Your task to perform on an android device: set the stopwatch Image 0: 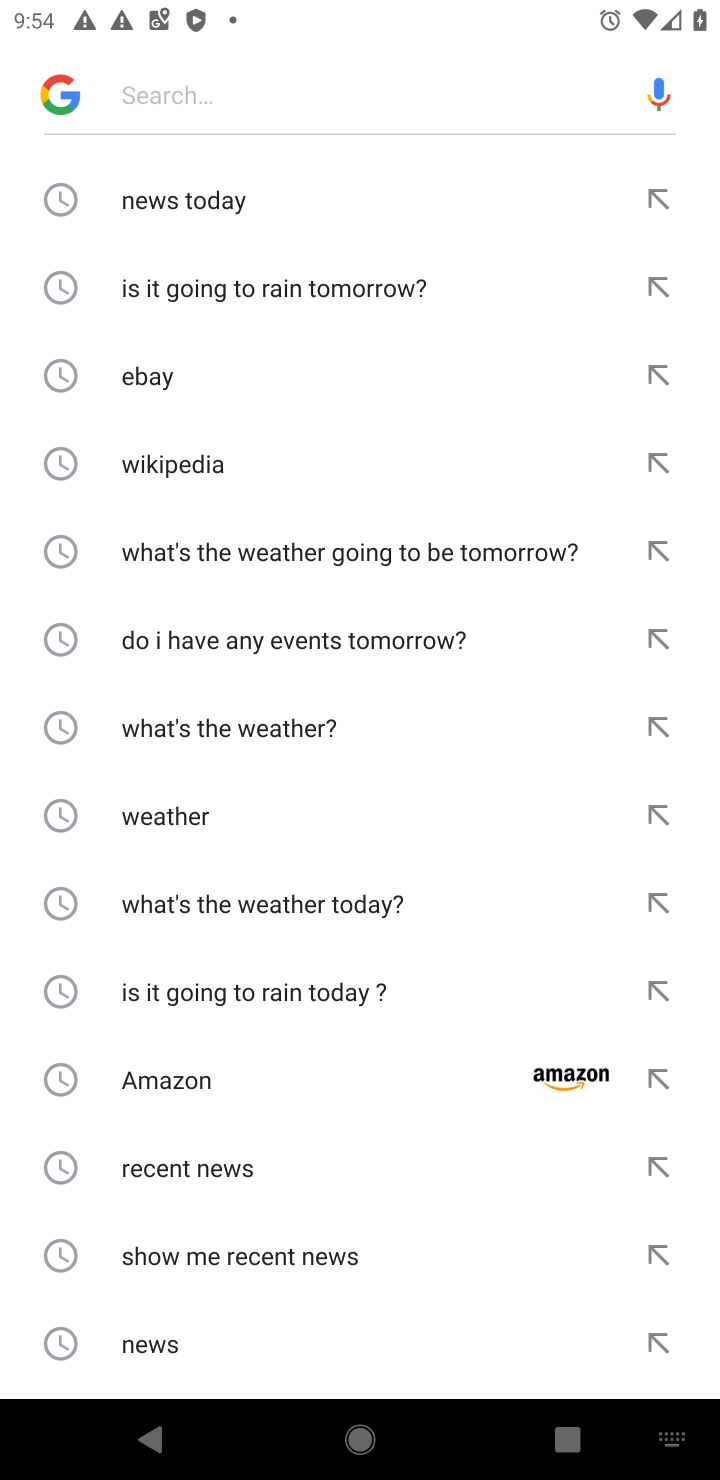
Step 0: press back button
Your task to perform on an android device: set the stopwatch Image 1: 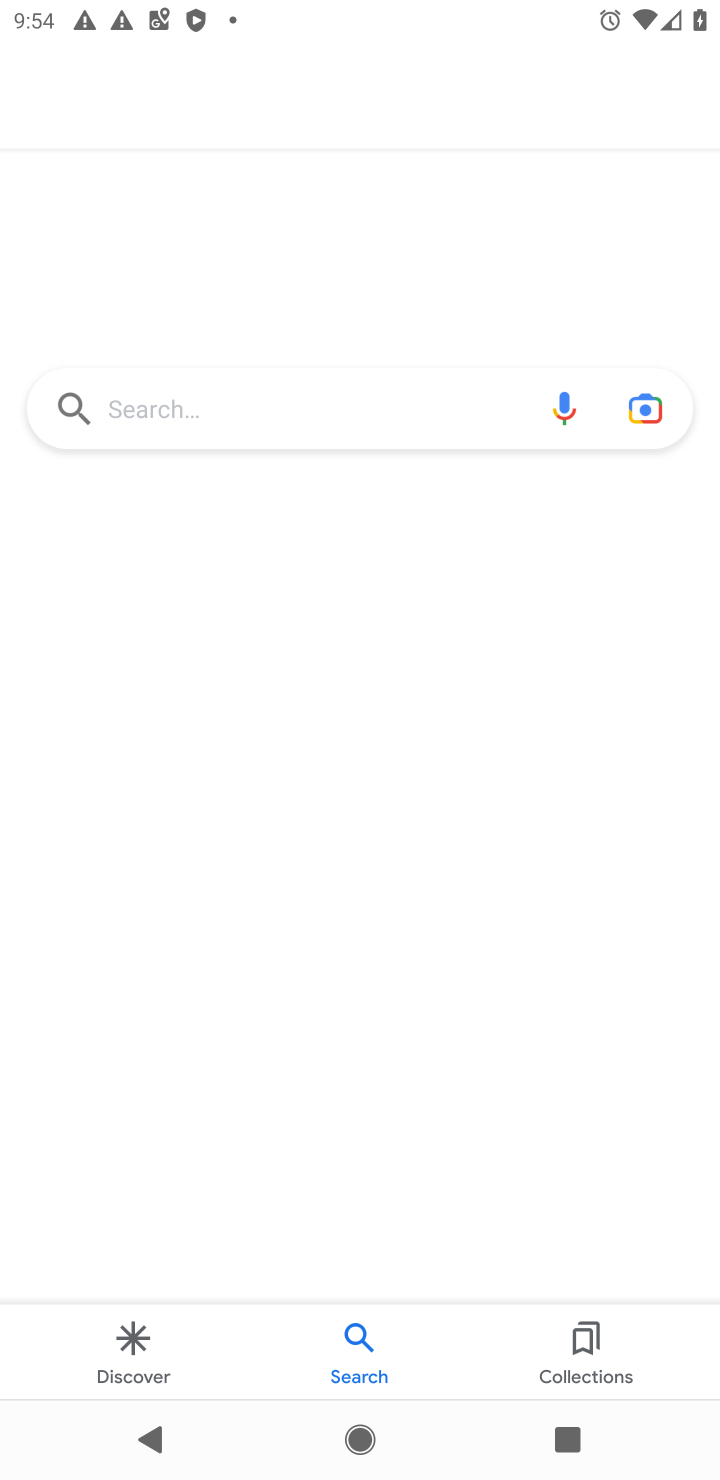
Step 1: press back button
Your task to perform on an android device: set the stopwatch Image 2: 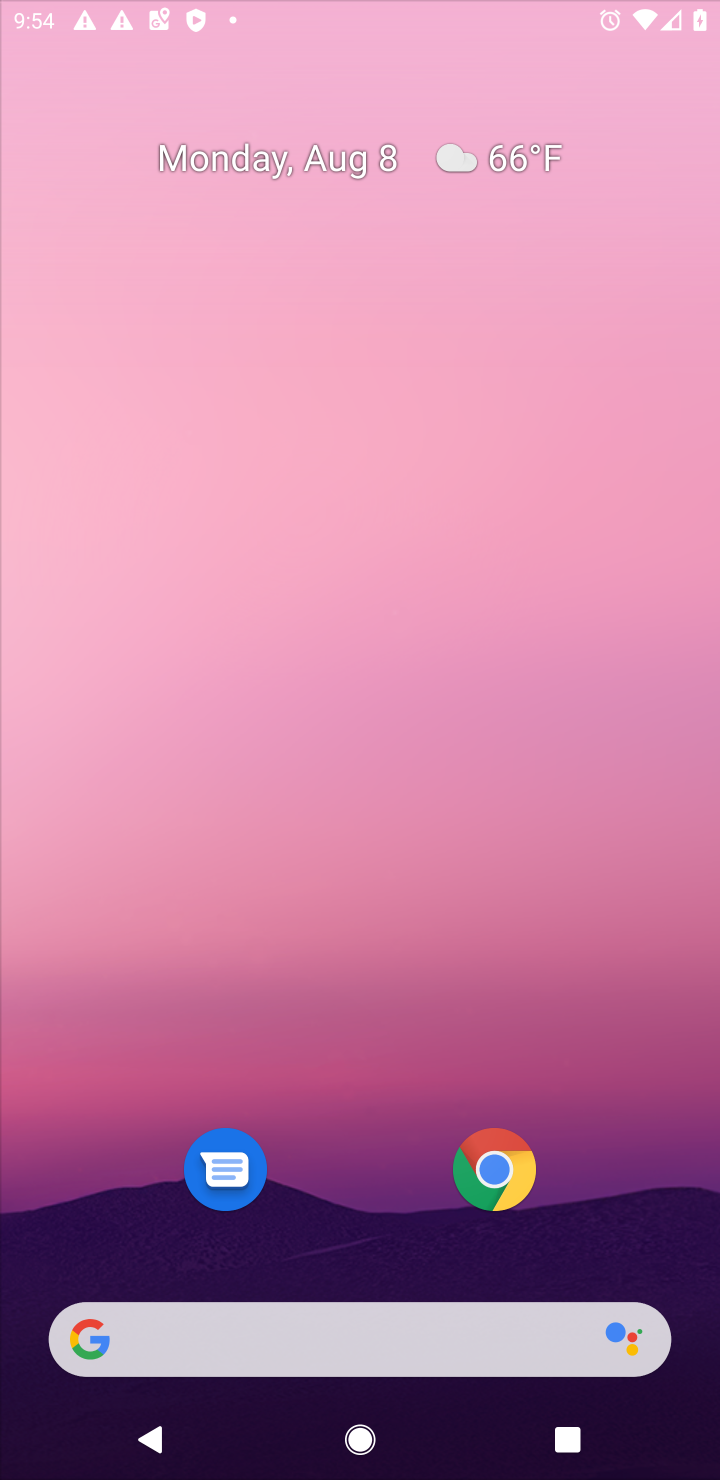
Step 2: press back button
Your task to perform on an android device: set the stopwatch Image 3: 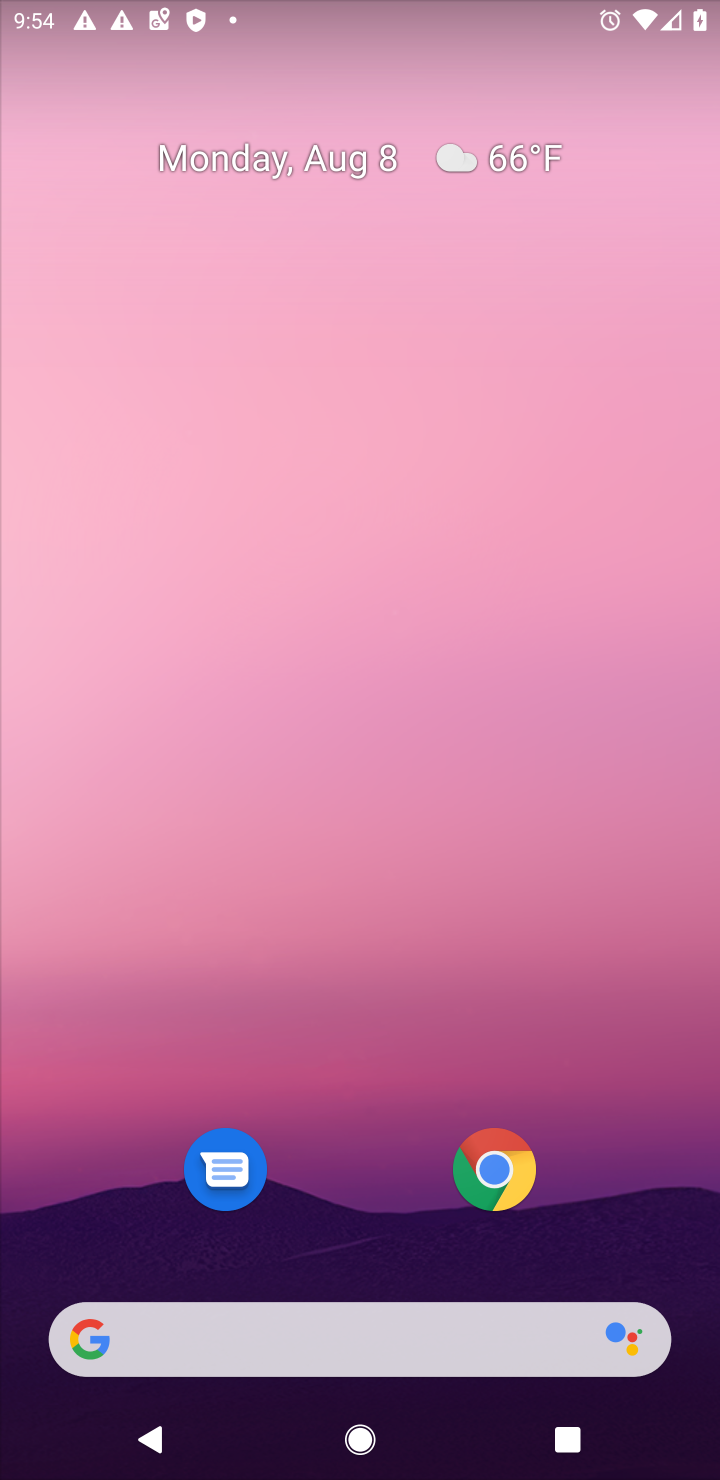
Step 3: drag from (365, 1018) to (509, 43)
Your task to perform on an android device: set the stopwatch Image 4: 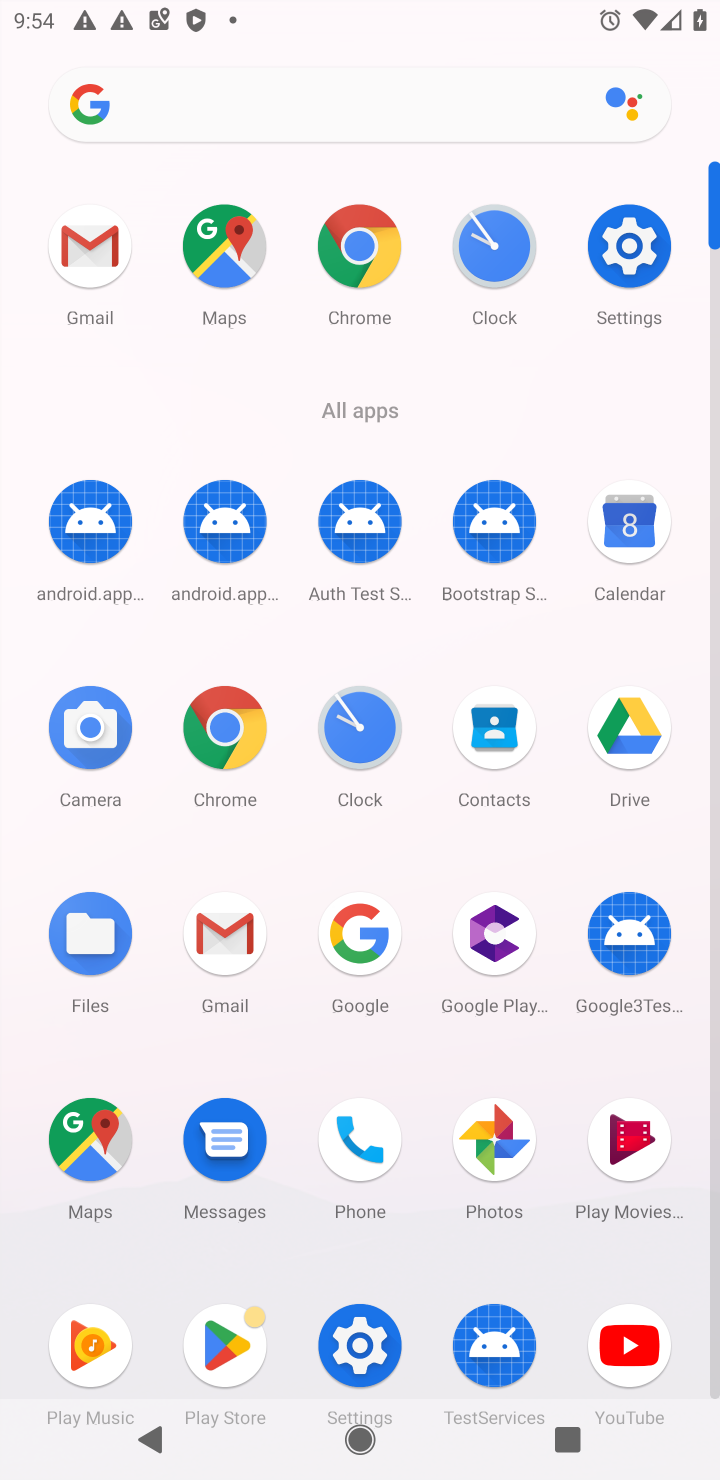
Step 4: click (353, 722)
Your task to perform on an android device: set the stopwatch Image 5: 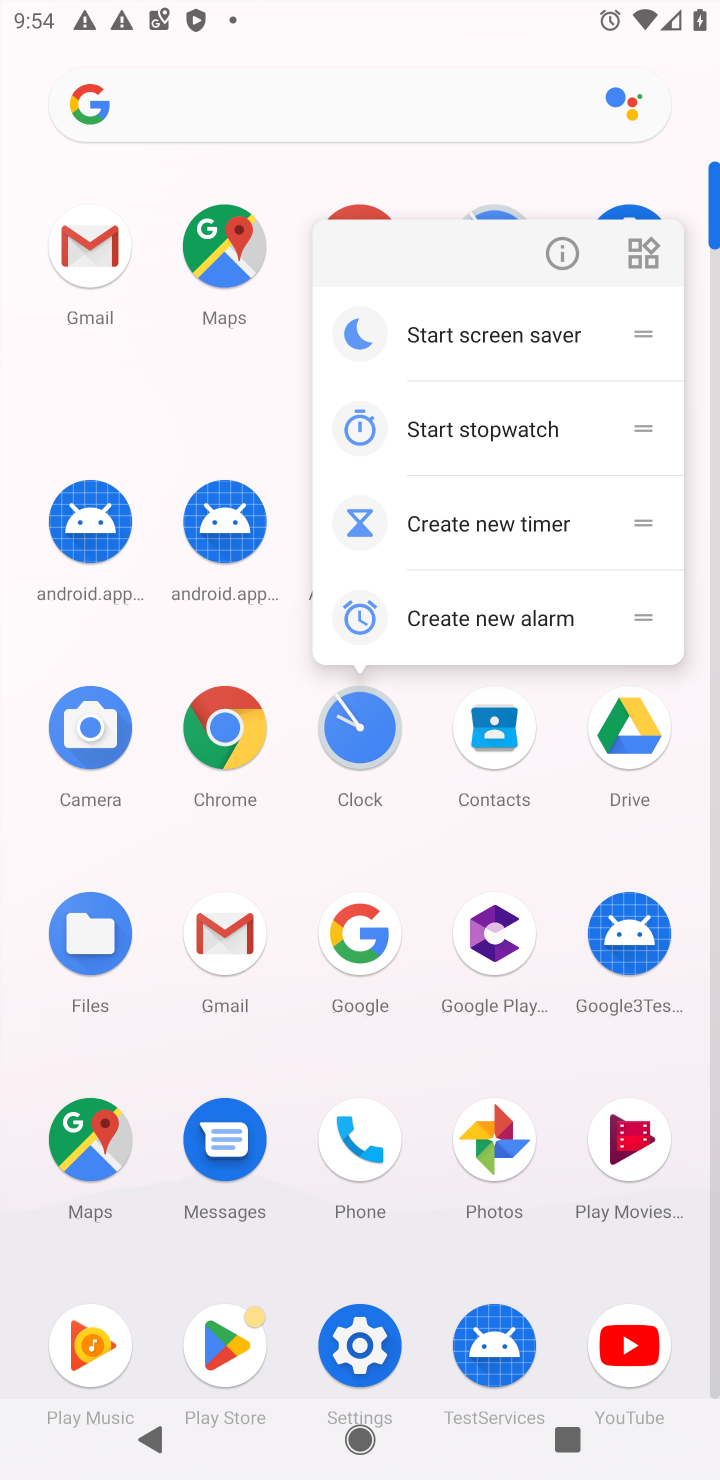
Step 5: click (385, 746)
Your task to perform on an android device: set the stopwatch Image 6: 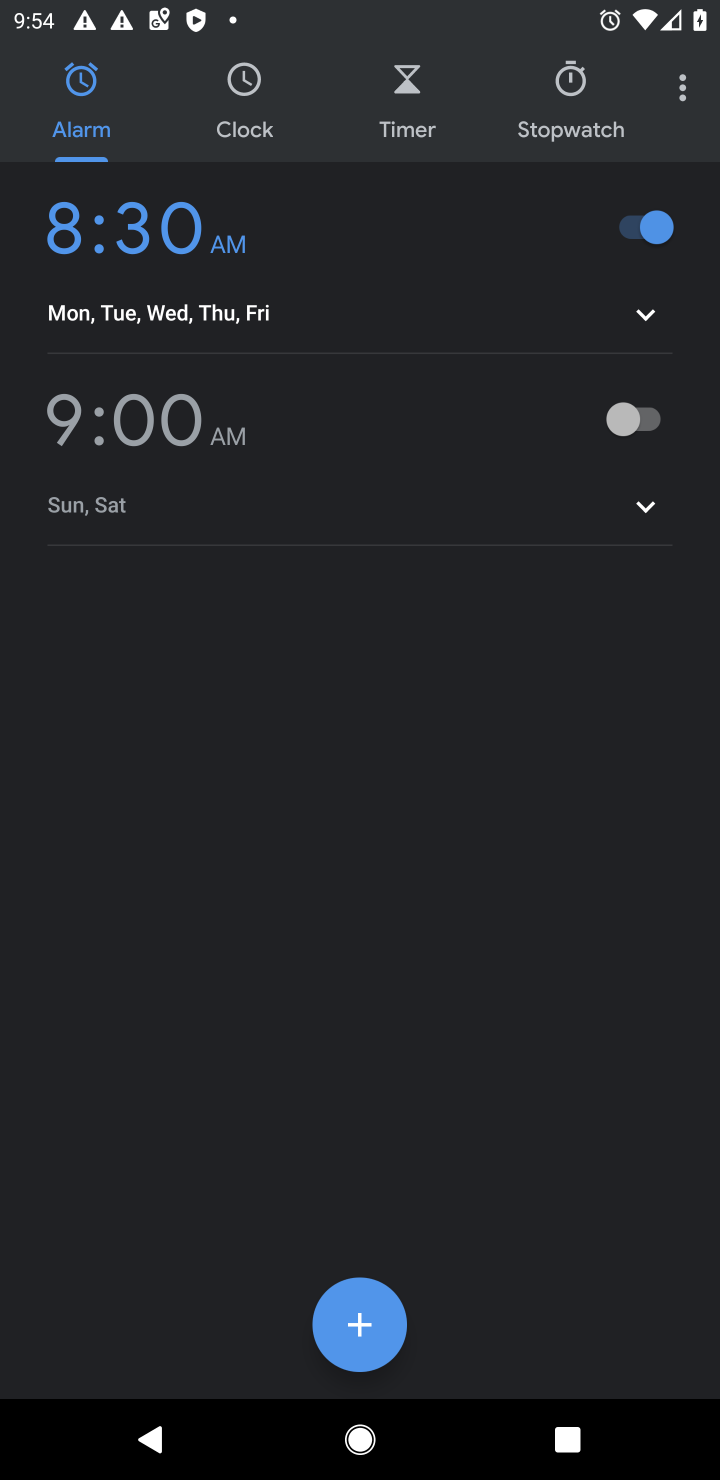
Step 6: click (558, 118)
Your task to perform on an android device: set the stopwatch Image 7: 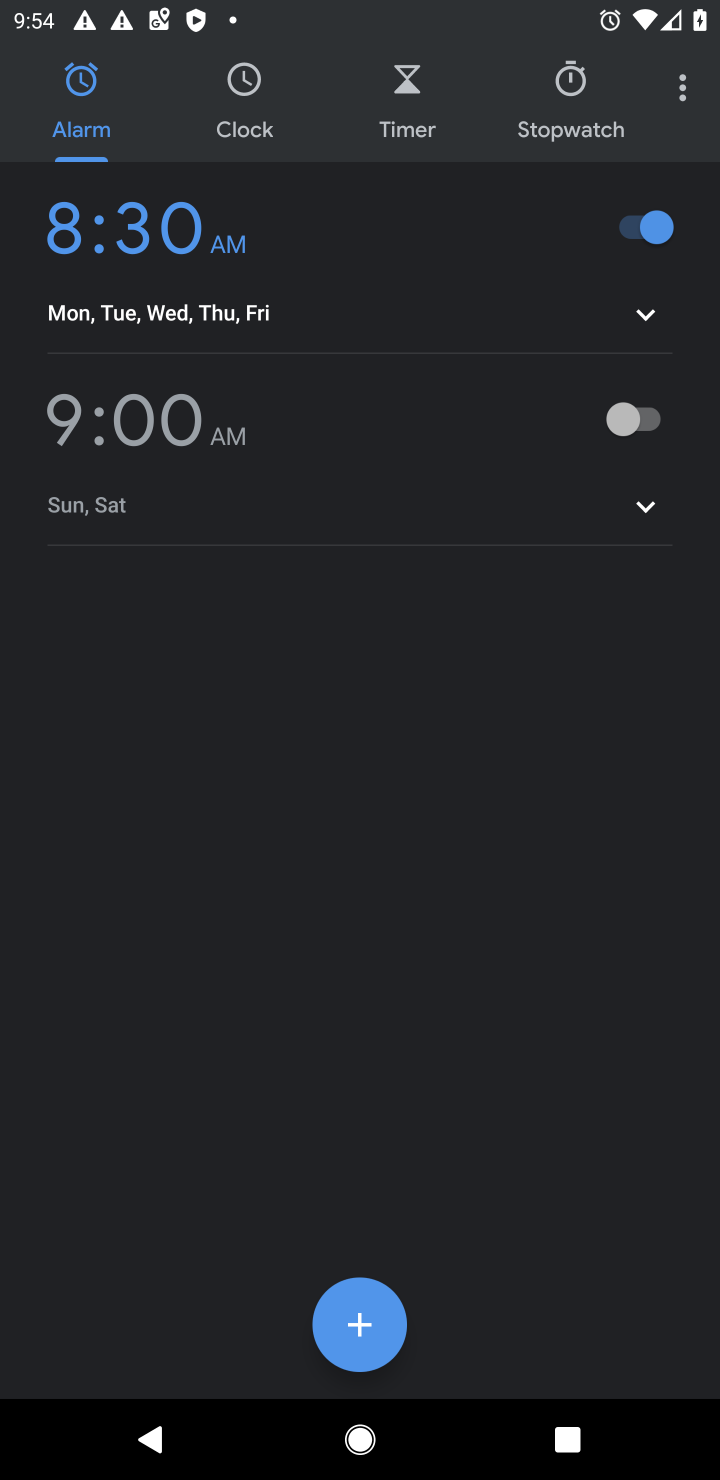
Step 7: click (564, 102)
Your task to perform on an android device: set the stopwatch Image 8: 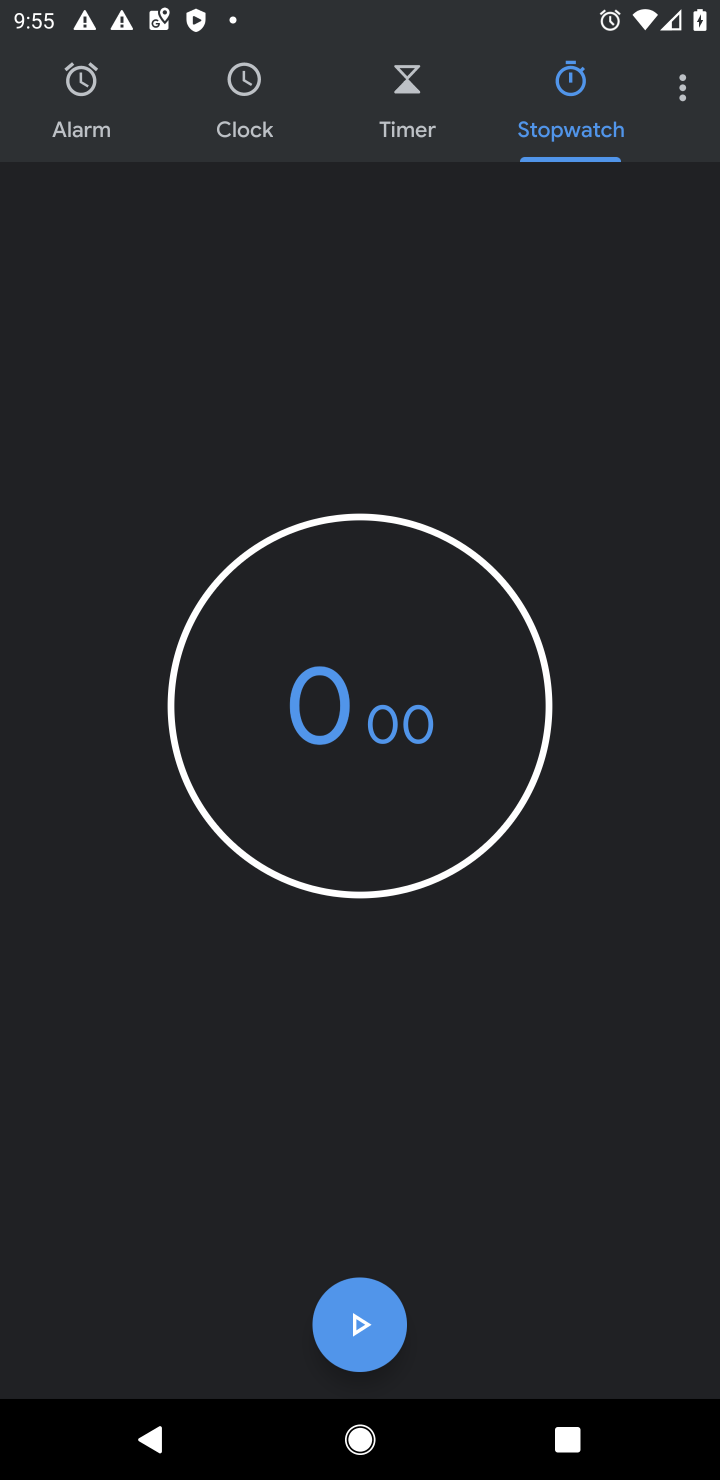
Step 8: click (369, 717)
Your task to perform on an android device: set the stopwatch Image 9: 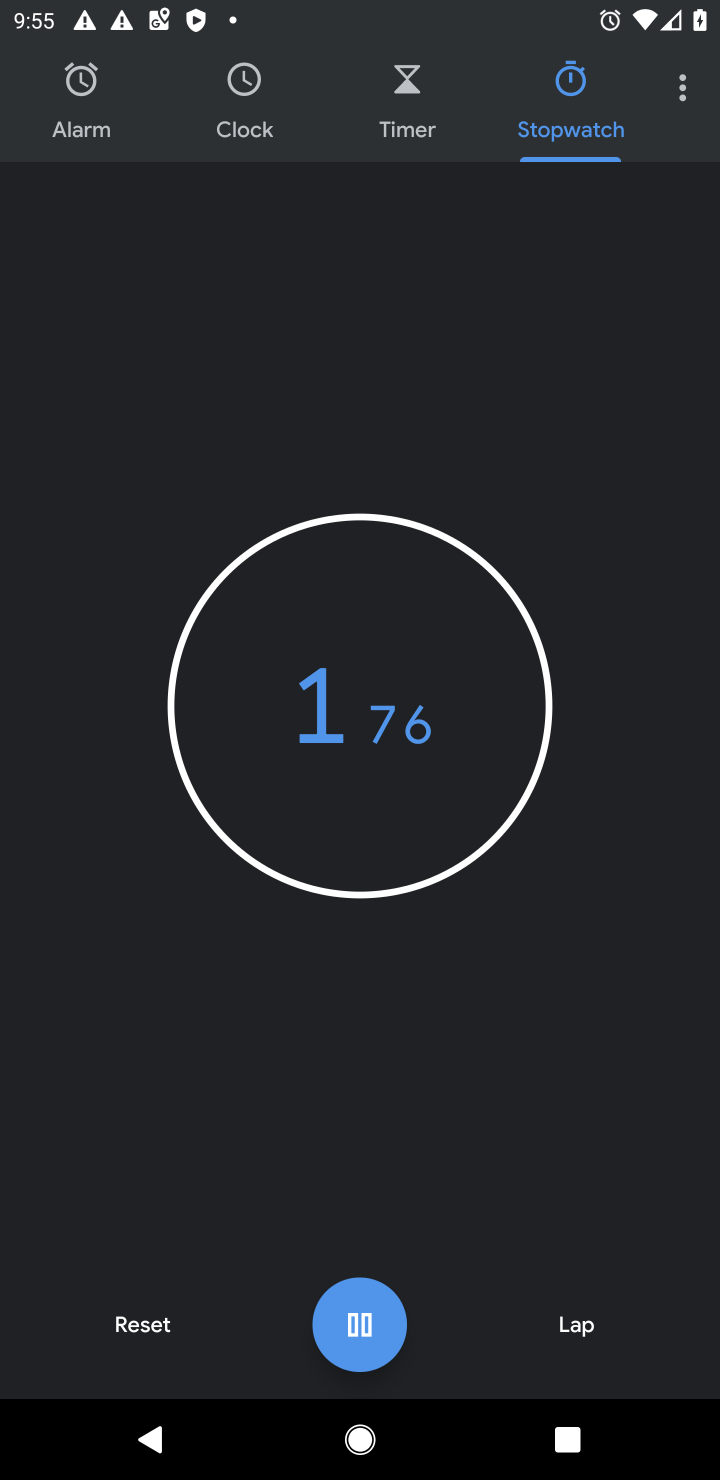
Step 9: click (369, 717)
Your task to perform on an android device: set the stopwatch Image 10: 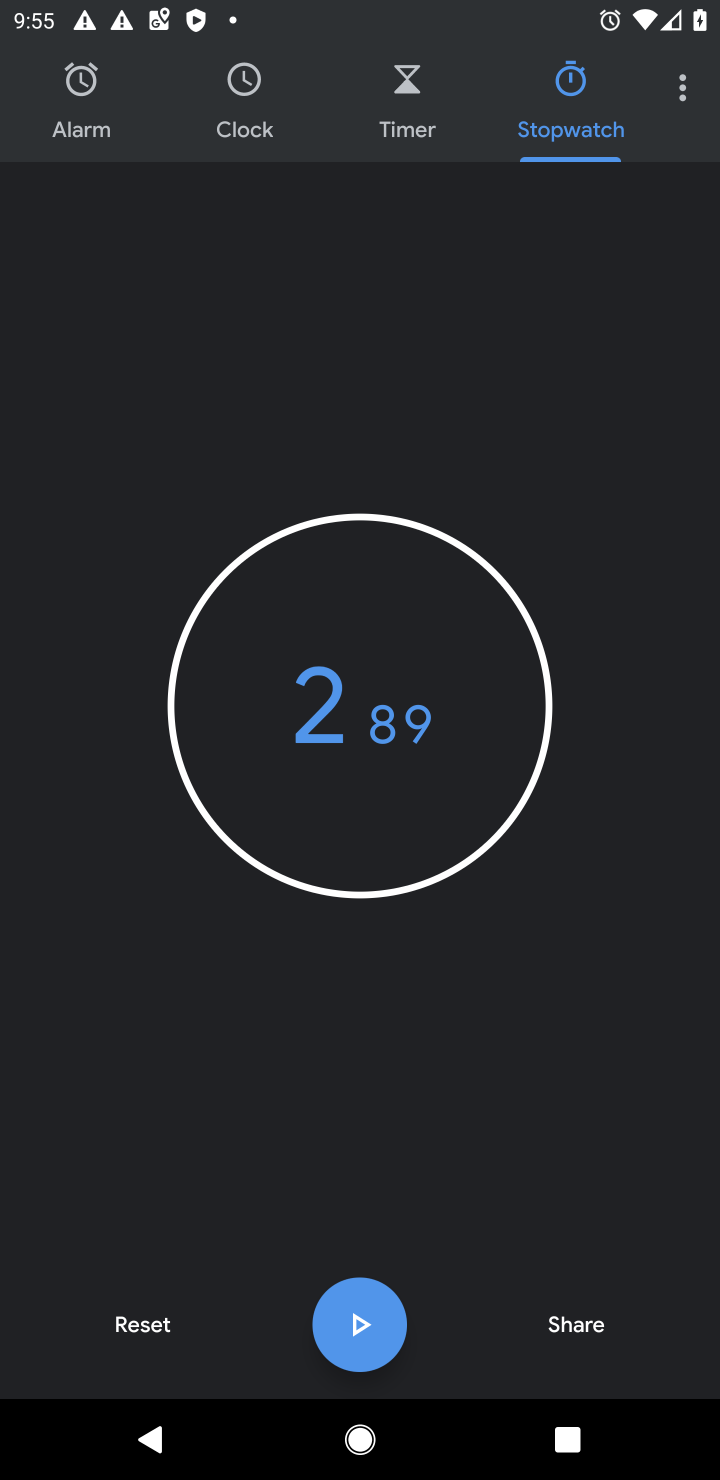
Step 10: task complete